Your task to perform on an android device: Go to Maps Image 0: 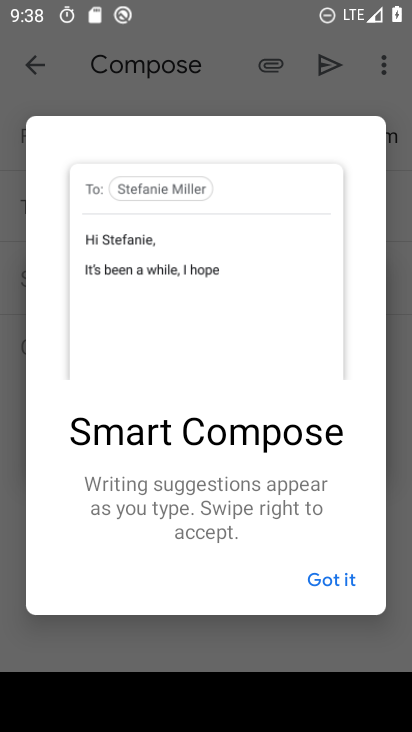
Step 0: press home button
Your task to perform on an android device: Go to Maps Image 1: 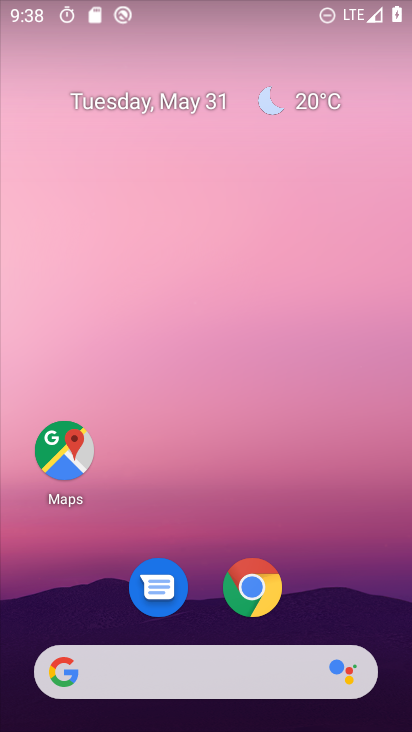
Step 1: click (70, 451)
Your task to perform on an android device: Go to Maps Image 2: 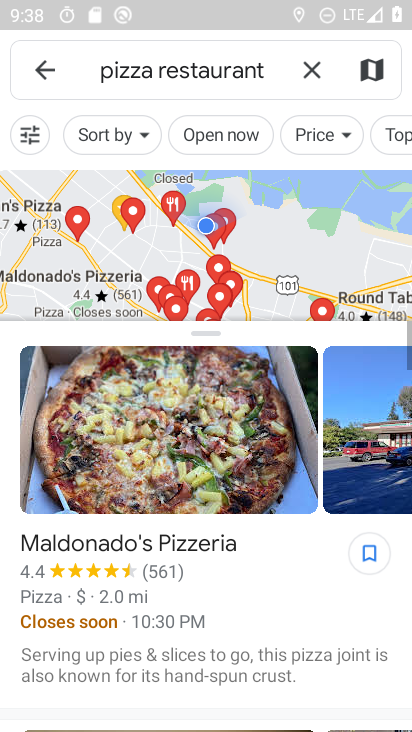
Step 2: task complete